Your task to perform on an android device: Open Reddit.com Image 0: 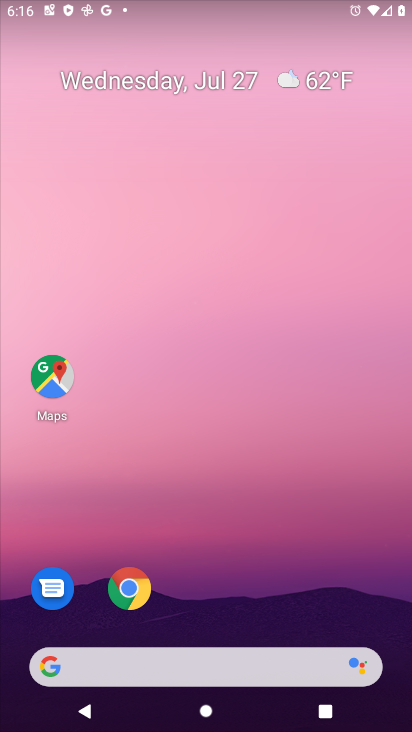
Step 0: click (136, 594)
Your task to perform on an android device: Open Reddit.com Image 1: 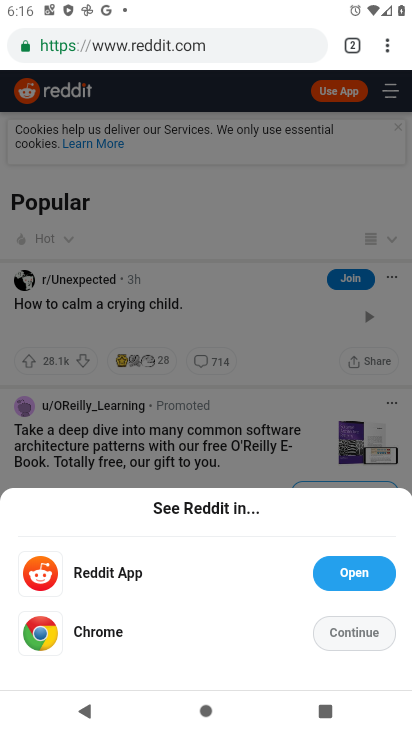
Step 1: task complete